Your task to perform on an android device: toggle sleep mode Image 0: 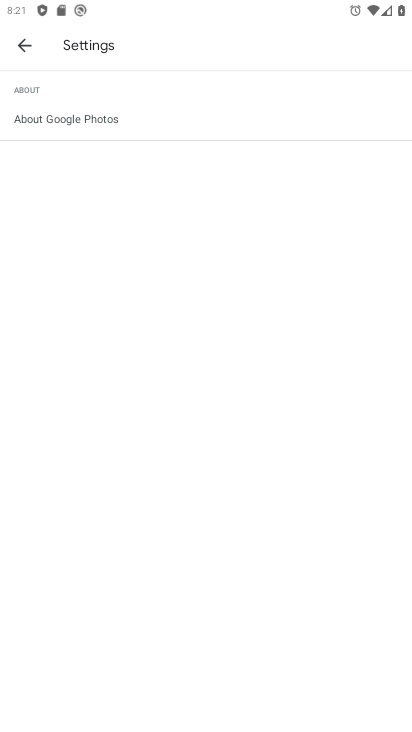
Step 0: press home button
Your task to perform on an android device: toggle sleep mode Image 1: 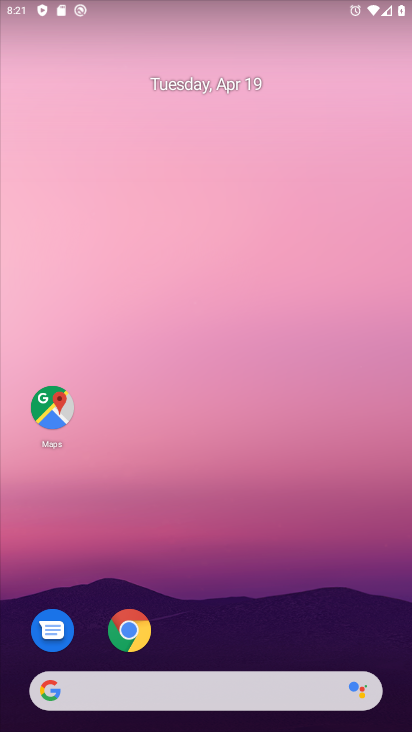
Step 1: drag from (256, 599) to (289, 123)
Your task to perform on an android device: toggle sleep mode Image 2: 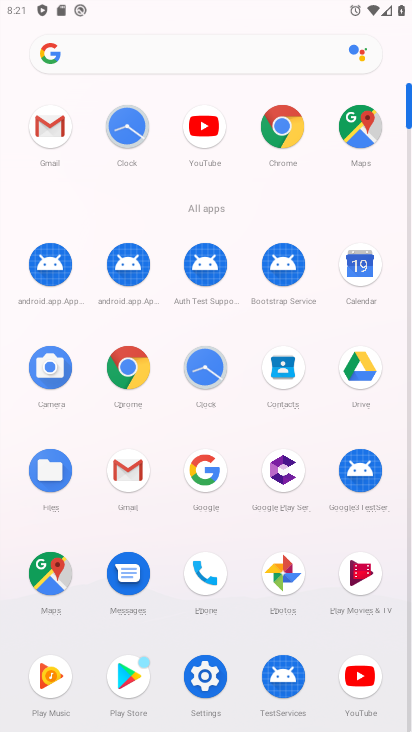
Step 2: click (206, 679)
Your task to perform on an android device: toggle sleep mode Image 3: 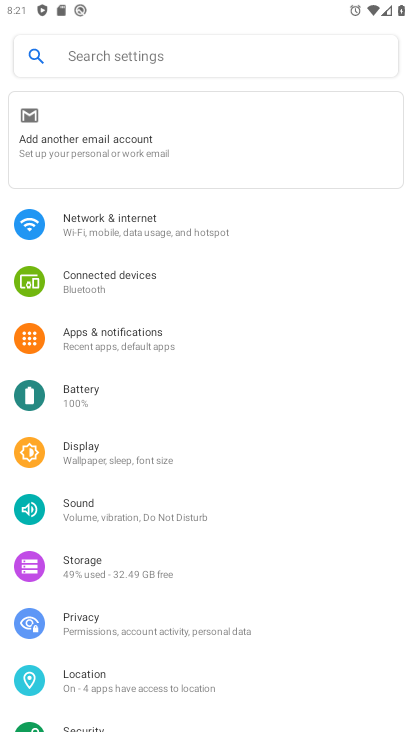
Step 3: drag from (223, 606) to (257, 407)
Your task to perform on an android device: toggle sleep mode Image 4: 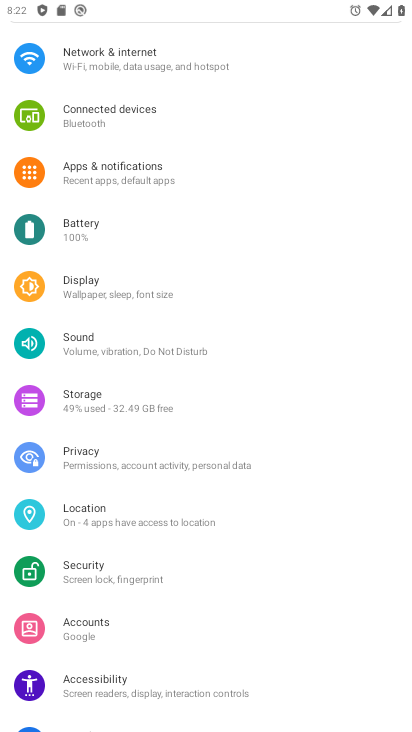
Step 4: click (200, 297)
Your task to perform on an android device: toggle sleep mode Image 5: 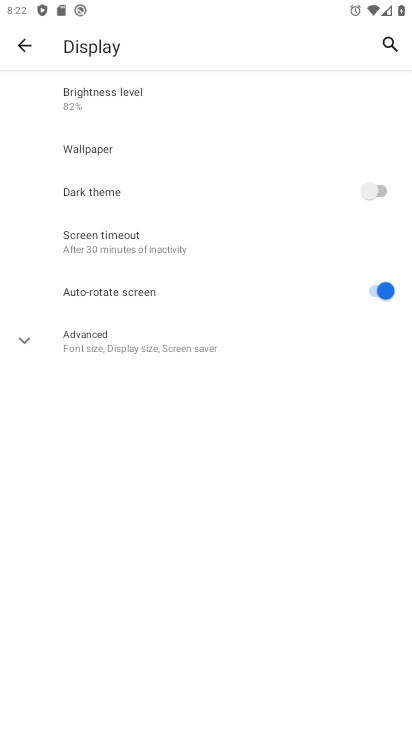
Step 5: click (237, 359)
Your task to perform on an android device: toggle sleep mode Image 6: 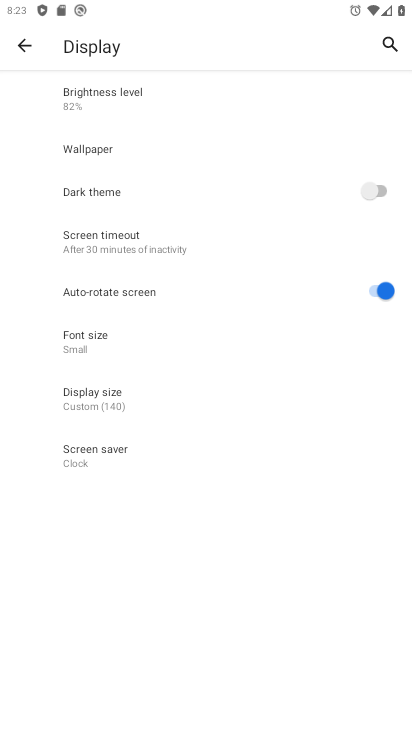
Step 6: task complete